Your task to perform on an android device: toggle wifi Image 0: 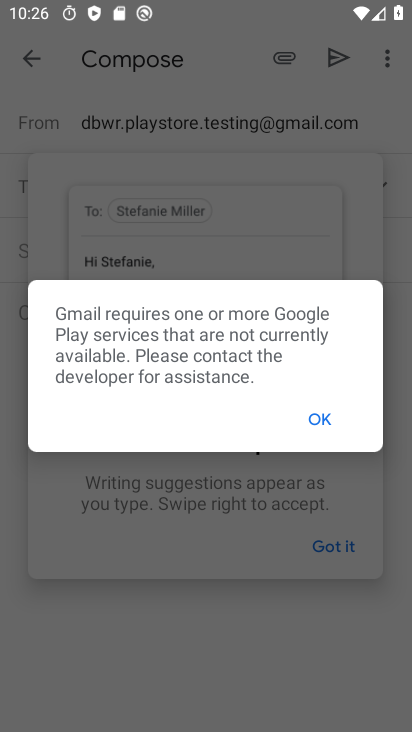
Step 0: press home button
Your task to perform on an android device: toggle wifi Image 1: 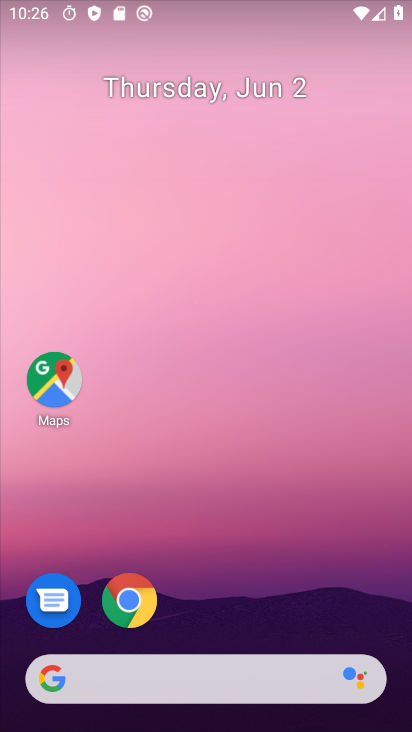
Step 1: drag from (206, 619) to (189, 49)
Your task to perform on an android device: toggle wifi Image 2: 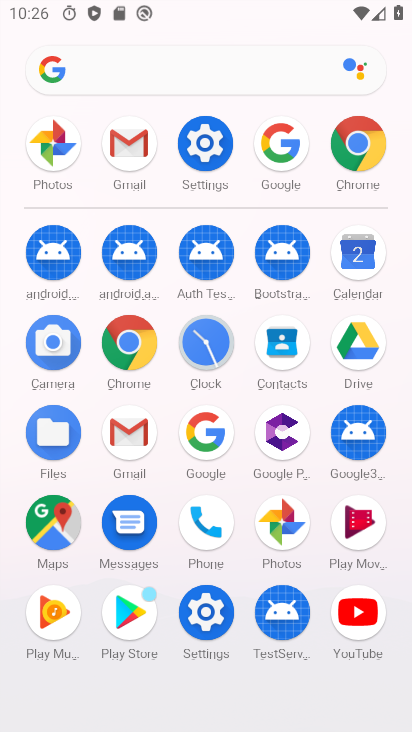
Step 2: click (207, 142)
Your task to perform on an android device: toggle wifi Image 3: 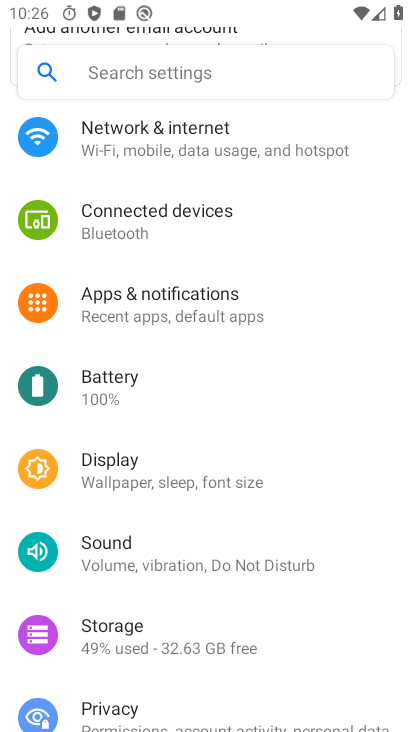
Step 3: drag from (193, 138) to (199, 393)
Your task to perform on an android device: toggle wifi Image 4: 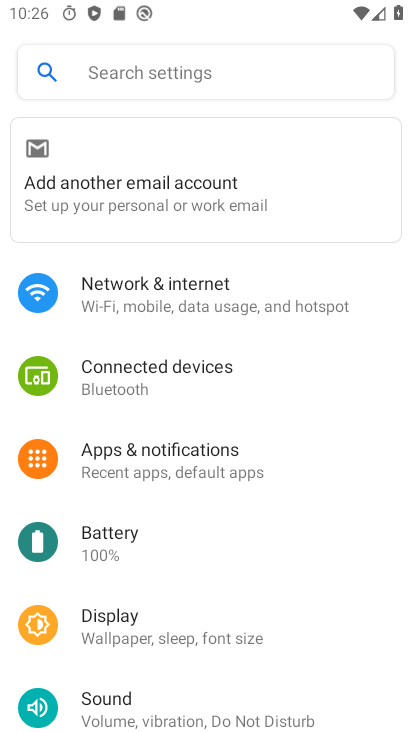
Step 4: click (187, 309)
Your task to perform on an android device: toggle wifi Image 5: 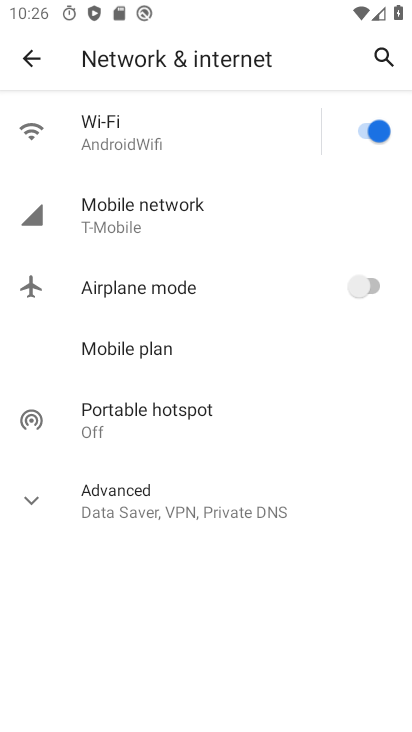
Step 5: click (378, 128)
Your task to perform on an android device: toggle wifi Image 6: 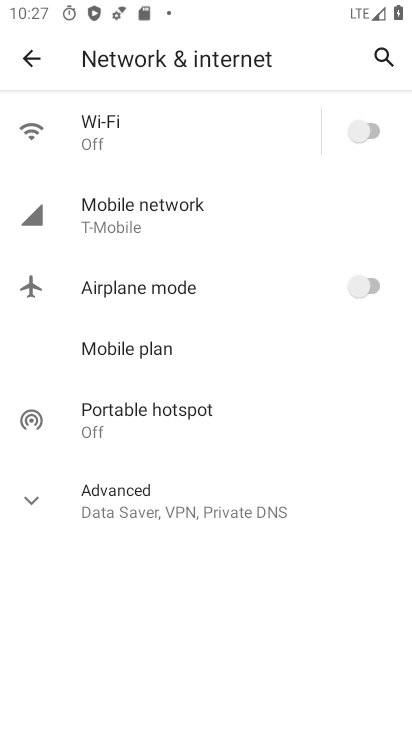
Step 6: task complete